Your task to perform on an android device: turn off smart reply in the gmail app Image 0: 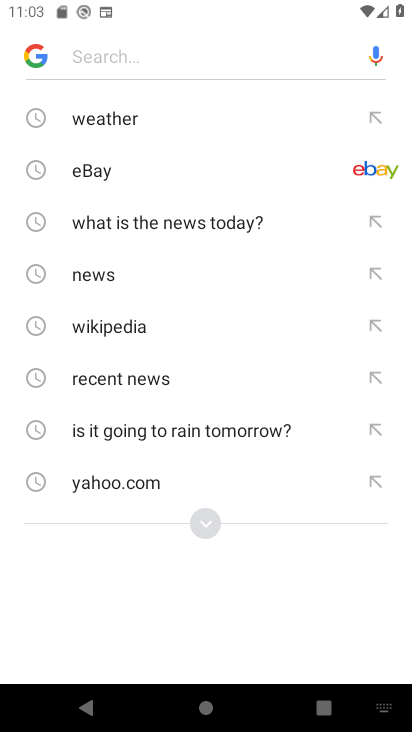
Step 0: press home button
Your task to perform on an android device: turn off smart reply in the gmail app Image 1: 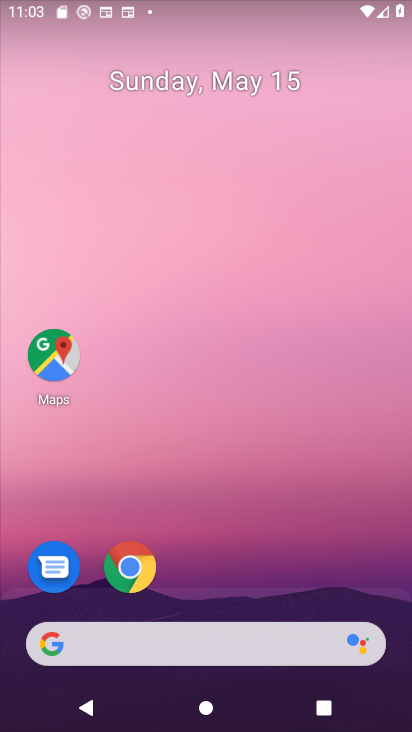
Step 1: click (175, 29)
Your task to perform on an android device: turn off smart reply in the gmail app Image 2: 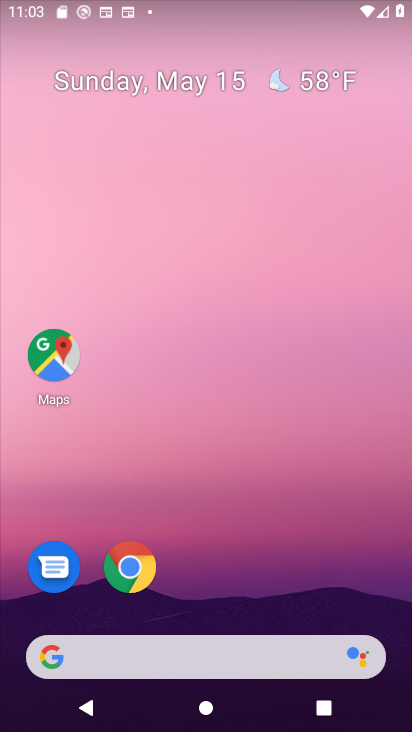
Step 2: drag from (259, 598) to (357, 238)
Your task to perform on an android device: turn off smart reply in the gmail app Image 3: 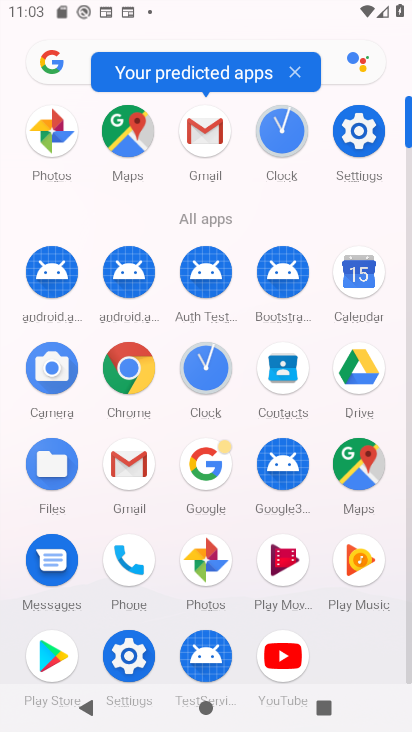
Step 3: click (209, 152)
Your task to perform on an android device: turn off smart reply in the gmail app Image 4: 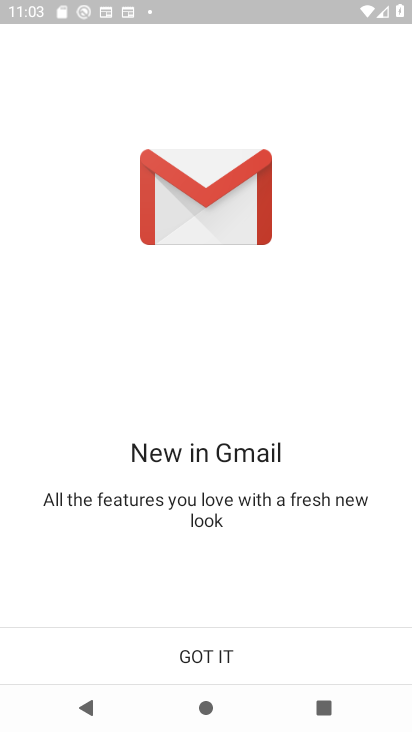
Step 4: click (107, 647)
Your task to perform on an android device: turn off smart reply in the gmail app Image 5: 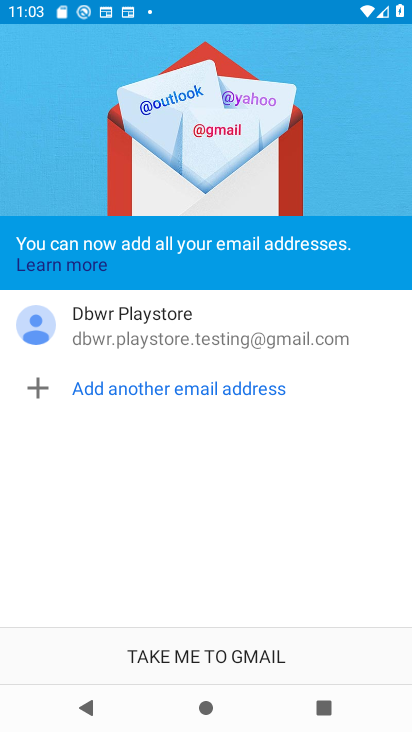
Step 5: click (107, 647)
Your task to perform on an android device: turn off smart reply in the gmail app Image 6: 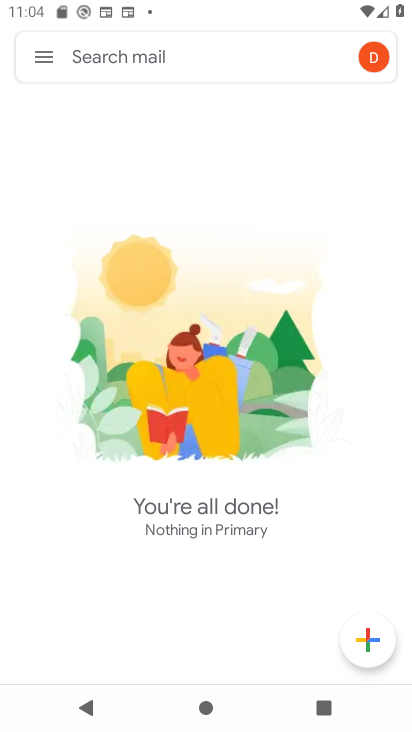
Step 6: click (168, 663)
Your task to perform on an android device: turn off smart reply in the gmail app Image 7: 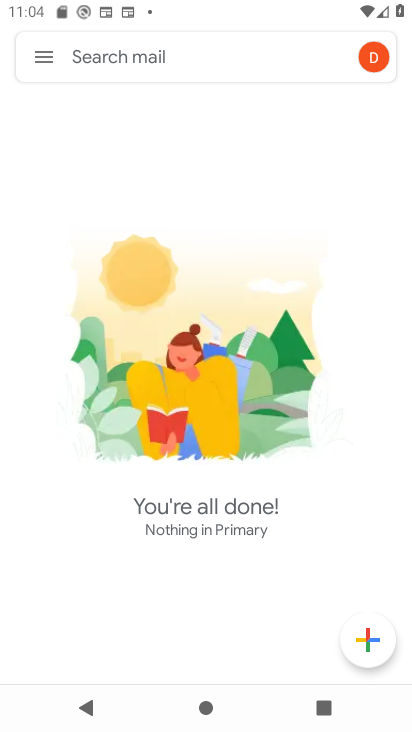
Step 7: click (33, 59)
Your task to perform on an android device: turn off smart reply in the gmail app Image 8: 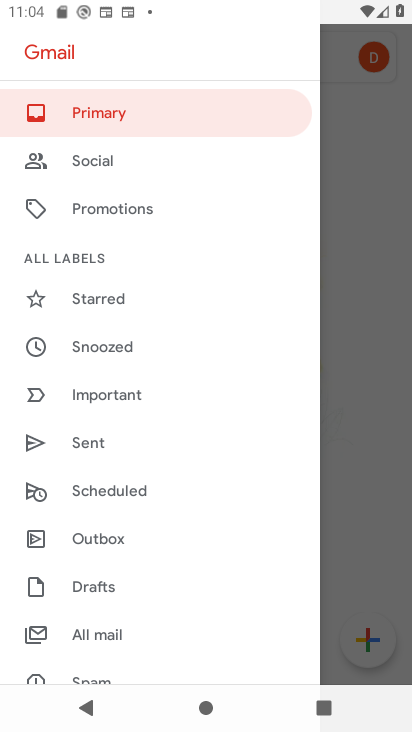
Step 8: drag from (95, 647) to (133, 151)
Your task to perform on an android device: turn off smart reply in the gmail app Image 9: 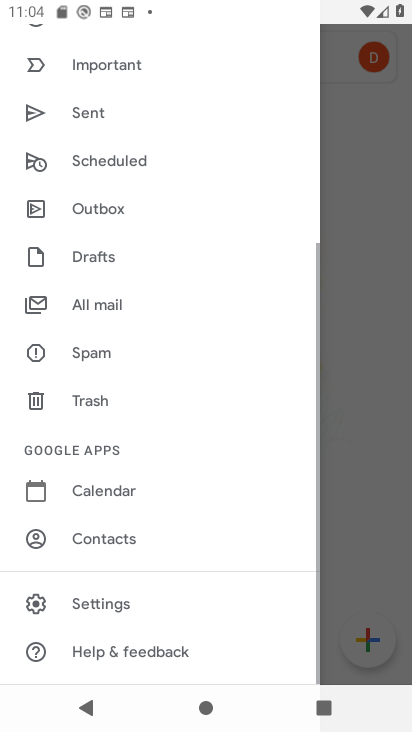
Step 9: drag from (188, 664) to (206, 74)
Your task to perform on an android device: turn off smart reply in the gmail app Image 10: 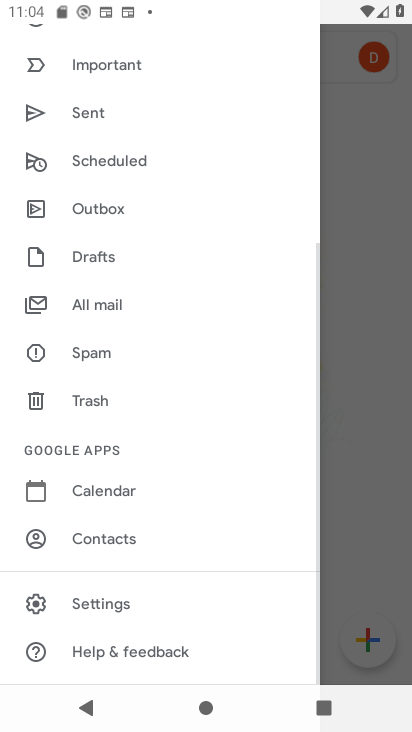
Step 10: click (141, 591)
Your task to perform on an android device: turn off smart reply in the gmail app Image 11: 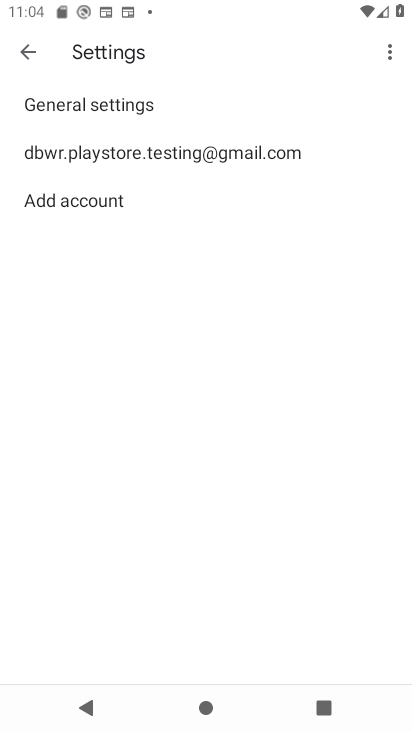
Step 11: click (209, 166)
Your task to perform on an android device: turn off smart reply in the gmail app Image 12: 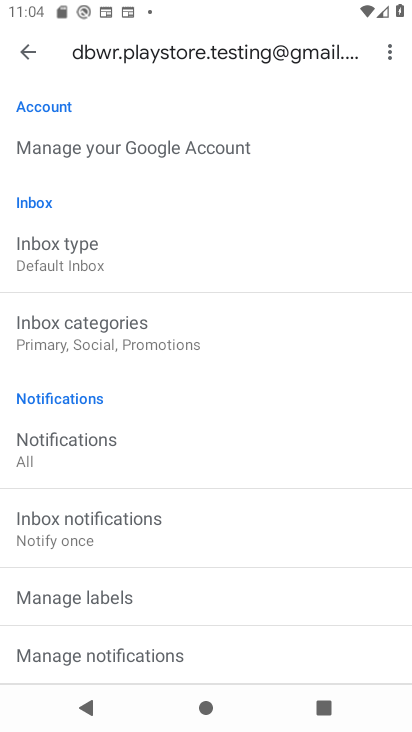
Step 12: drag from (261, 595) to (260, 135)
Your task to perform on an android device: turn off smart reply in the gmail app Image 13: 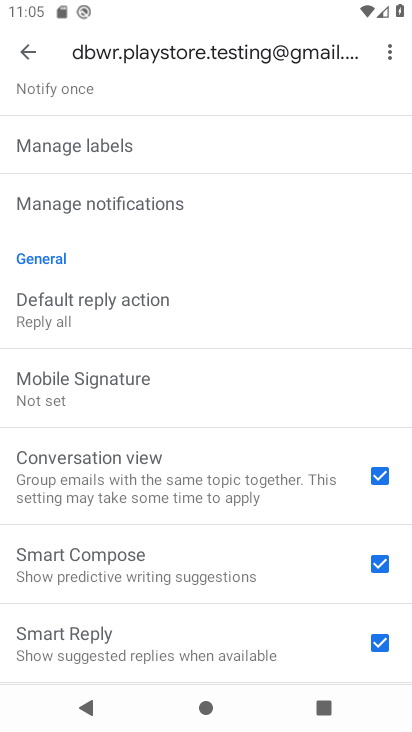
Step 13: click (380, 647)
Your task to perform on an android device: turn off smart reply in the gmail app Image 14: 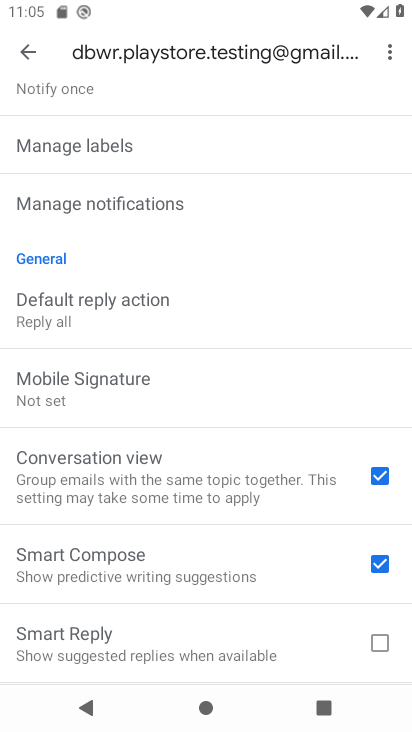
Step 14: task complete